Your task to perform on an android device: Show me popular videos on Youtube Image 0: 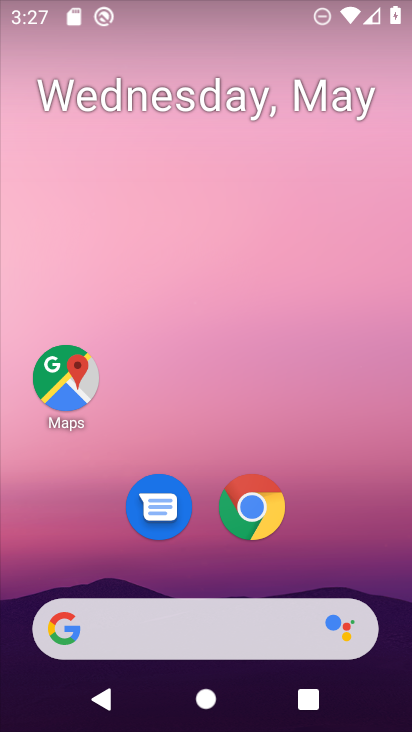
Step 0: drag from (209, 562) to (273, 91)
Your task to perform on an android device: Show me popular videos on Youtube Image 1: 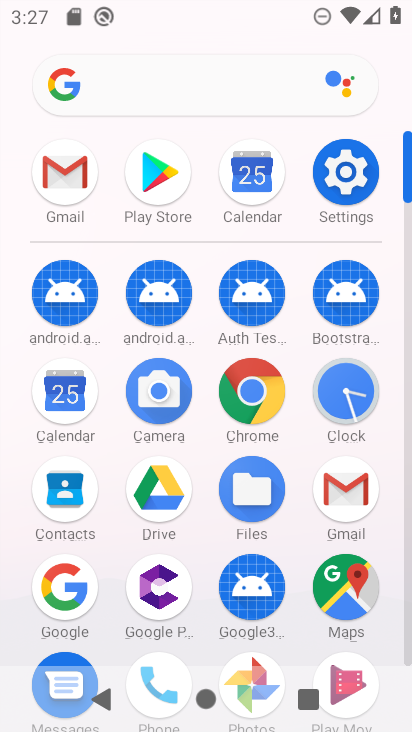
Step 1: drag from (227, 472) to (265, 210)
Your task to perform on an android device: Show me popular videos on Youtube Image 2: 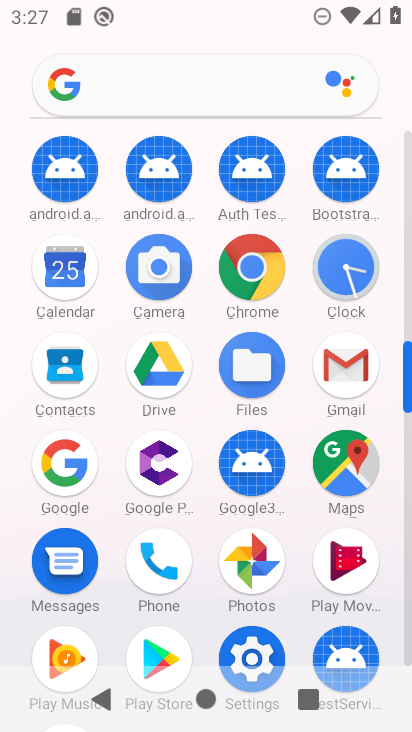
Step 2: drag from (203, 519) to (231, 166)
Your task to perform on an android device: Show me popular videos on Youtube Image 3: 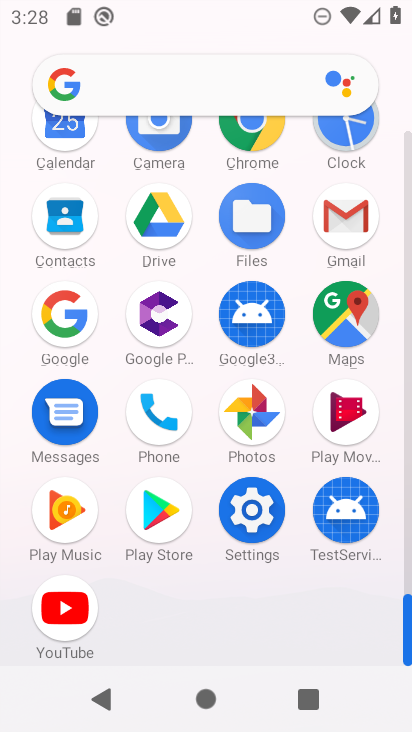
Step 3: click (71, 608)
Your task to perform on an android device: Show me popular videos on Youtube Image 4: 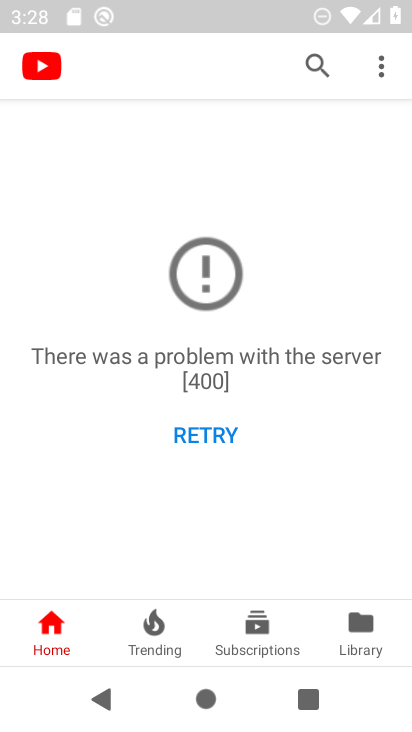
Step 4: click (210, 425)
Your task to perform on an android device: Show me popular videos on Youtube Image 5: 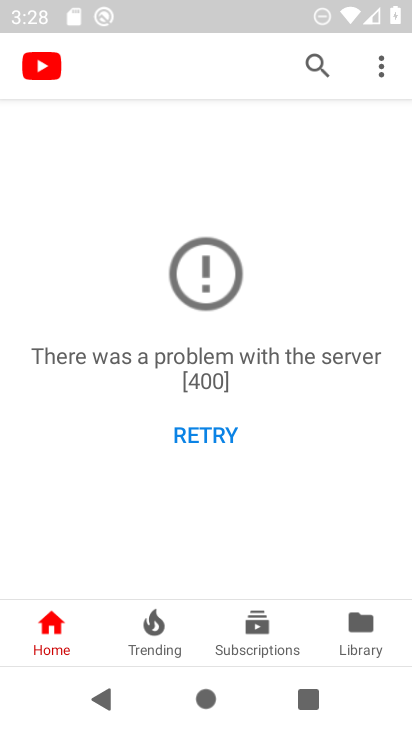
Step 5: click (260, 550)
Your task to perform on an android device: Show me popular videos on Youtube Image 6: 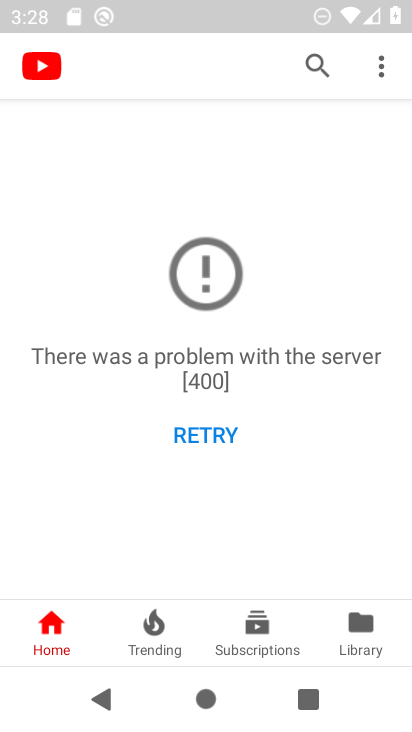
Step 6: click (260, 550)
Your task to perform on an android device: Show me popular videos on Youtube Image 7: 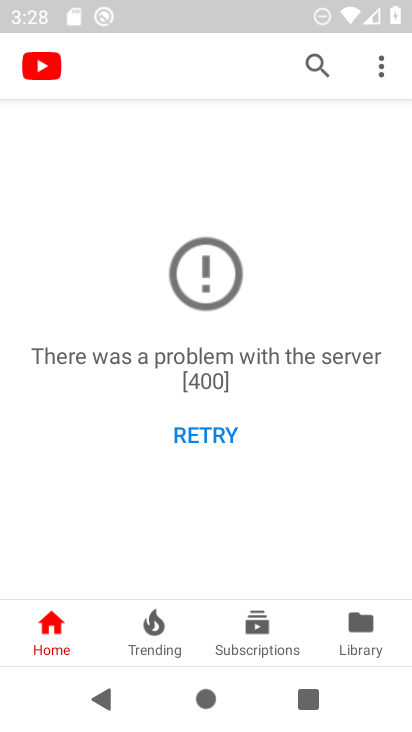
Step 7: click (260, 550)
Your task to perform on an android device: Show me popular videos on Youtube Image 8: 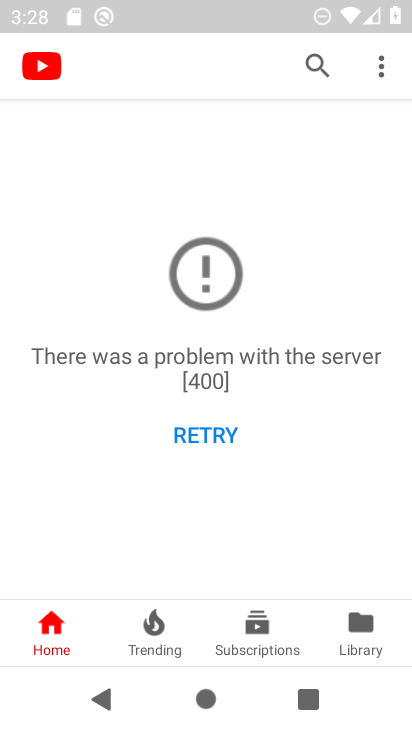
Step 8: click (203, 442)
Your task to perform on an android device: Show me popular videos on Youtube Image 9: 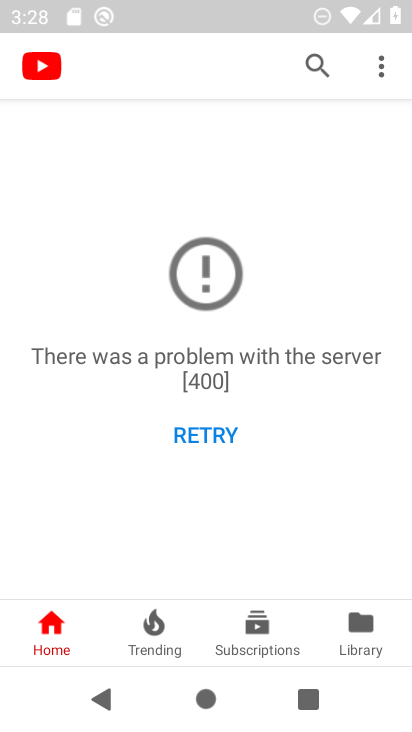
Step 9: click (214, 446)
Your task to perform on an android device: Show me popular videos on Youtube Image 10: 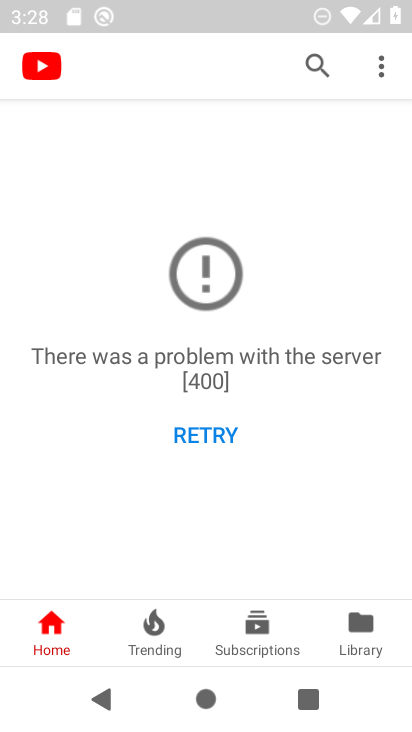
Step 10: click (214, 445)
Your task to perform on an android device: Show me popular videos on Youtube Image 11: 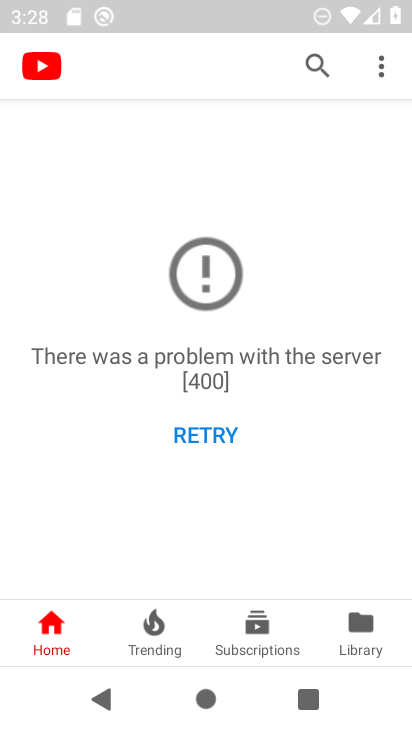
Step 11: task complete